Your task to perform on an android device: set the timer Image 0: 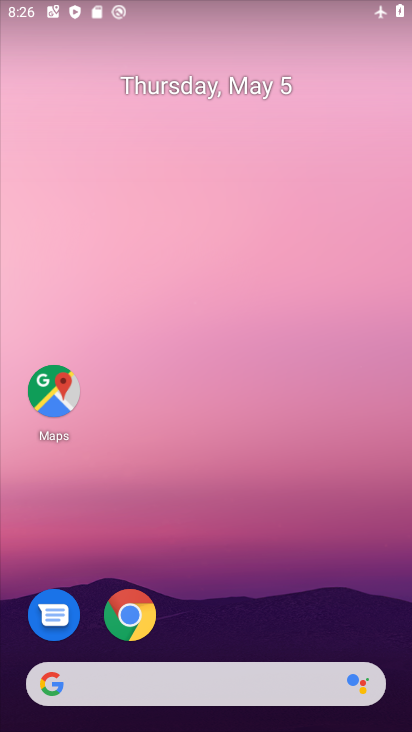
Step 0: drag from (198, 639) to (291, 204)
Your task to perform on an android device: set the timer Image 1: 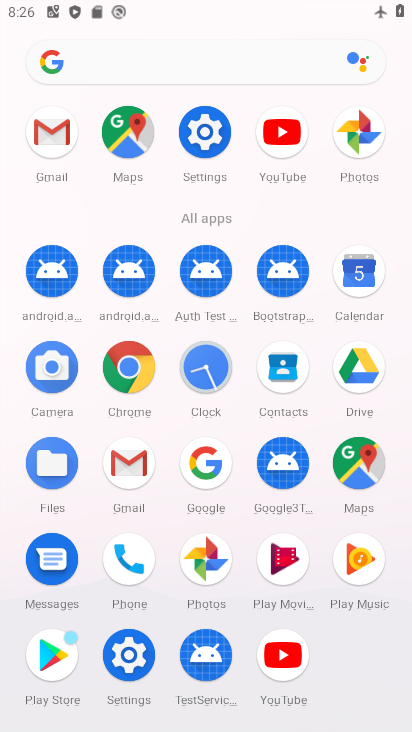
Step 1: click (206, 371)
Your task to perform on an android device: set the timer Image 2: 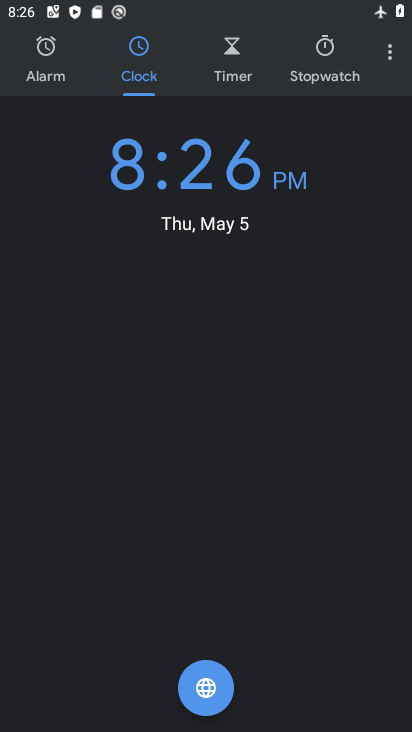
Step 2: click (236, 79)
Your task to perform on an android device: set the timer Image 3: 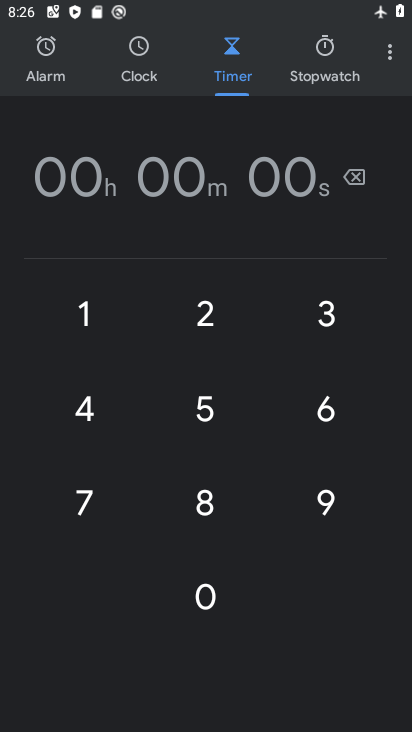
Step 3: click (206, 501)
Your task to perform on an android device: set the timer Image 4: 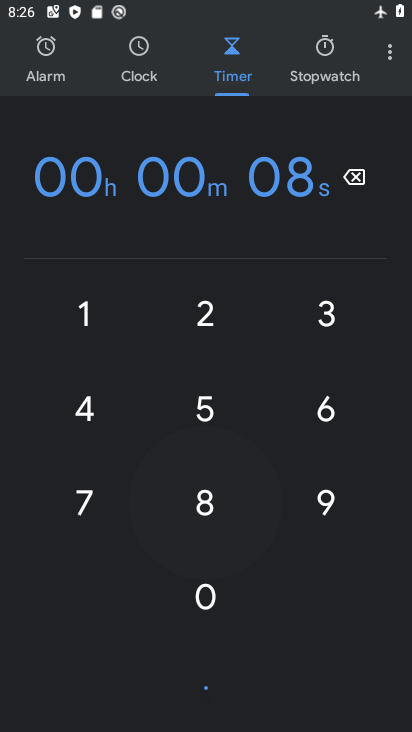
Step 4: click (100, 421)
Your task to perform on an android device: set the timer Image 5: 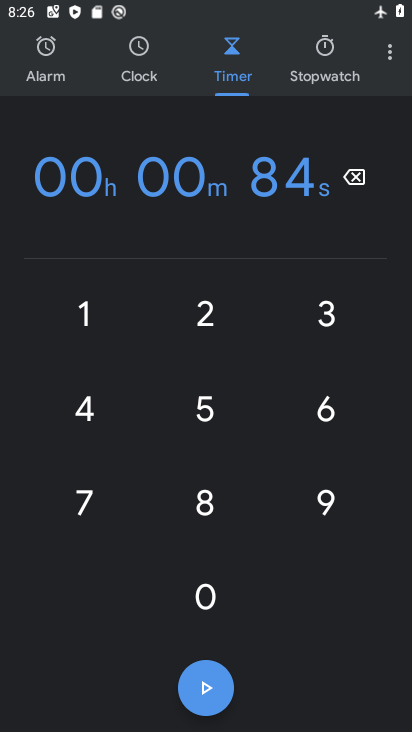
Step 5: click (204, 317)
Your task to perform on an android device: set the timer Image 6: 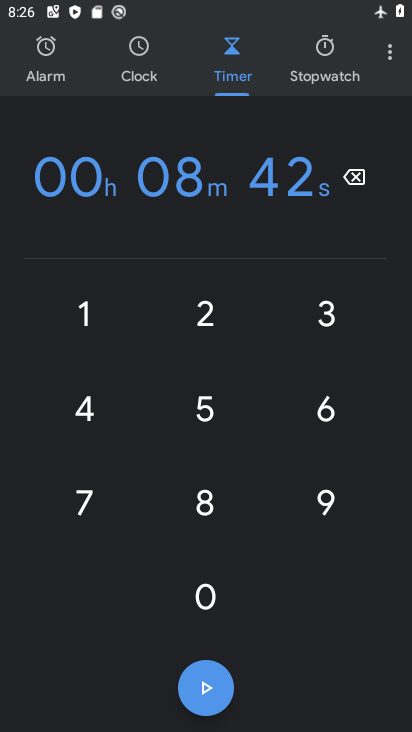
Step 6: click (213, 673)
Your task to perform on an android device: set the timer Image 7: 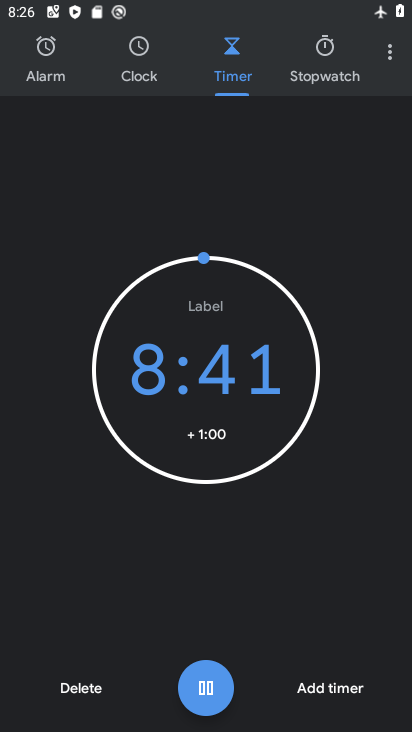
Step 7: task complete